Your task to perform on an android device: Check the settings for the Amazon Shopping app Image 0: 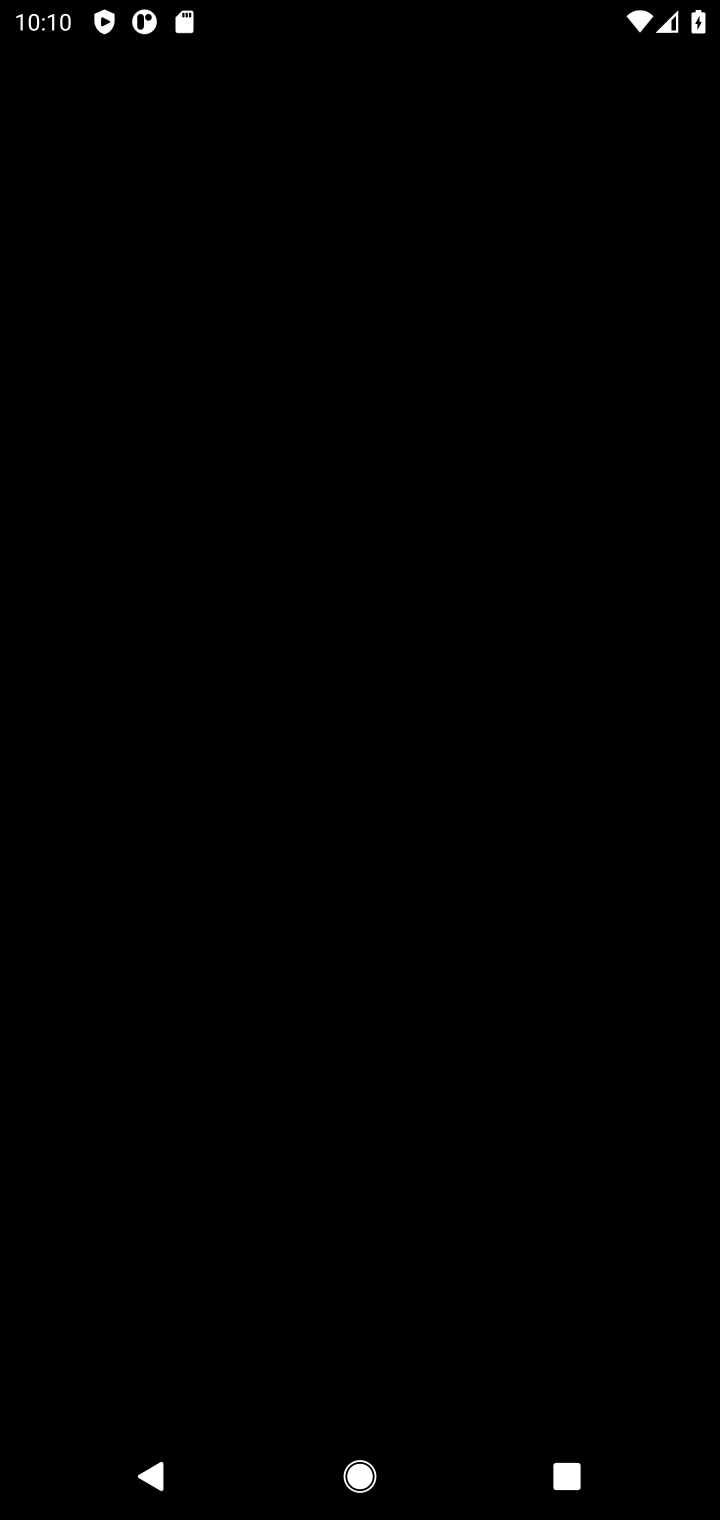
Step 0: press home button
Your task to perform on an android device: Check the settings for the Amazon Shopping app Image 1: 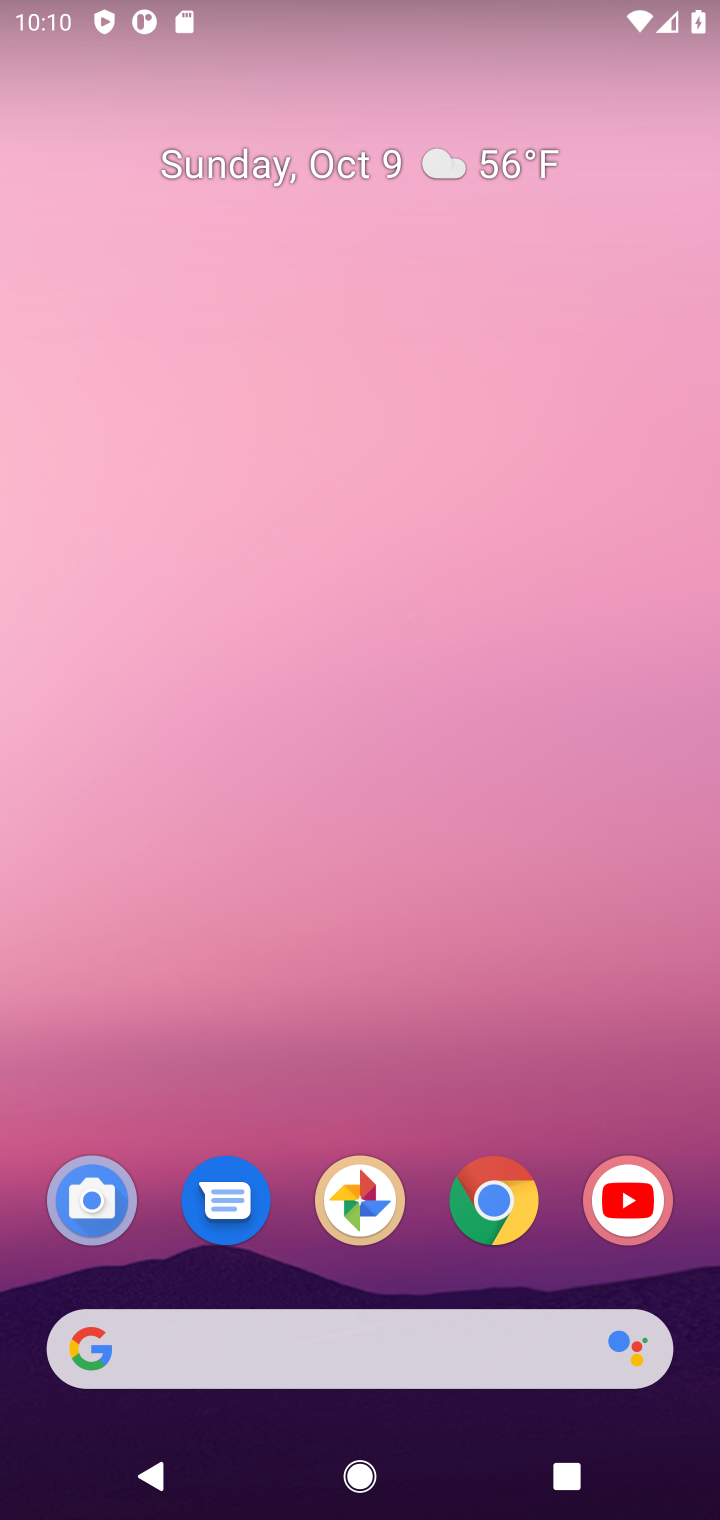
Step 1: task complete